Your task to perform on an android device: change timer sound Image 0: 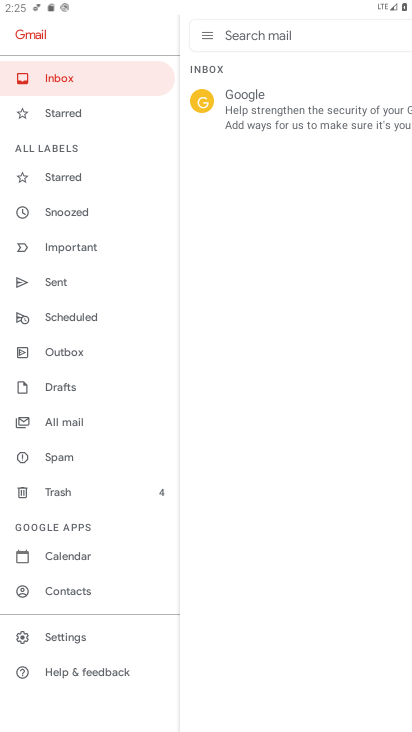
Step 0: press home button
Your task to perform on an android device: change timer sound Image 1: 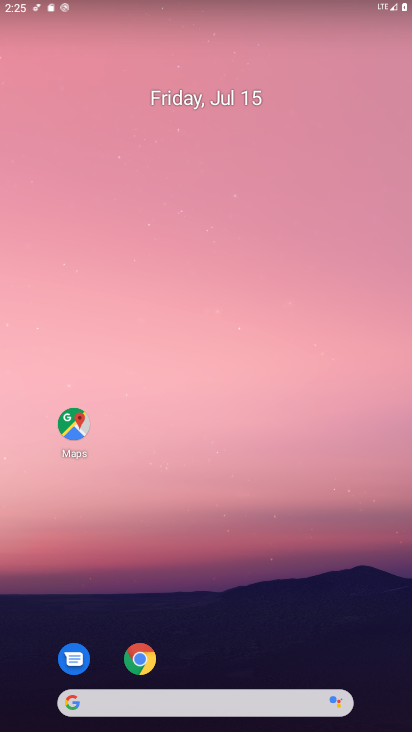
Step 1: drag from (194, 633) to (209, 221)
Your task to perform on an android device: change timer sound Image 2: 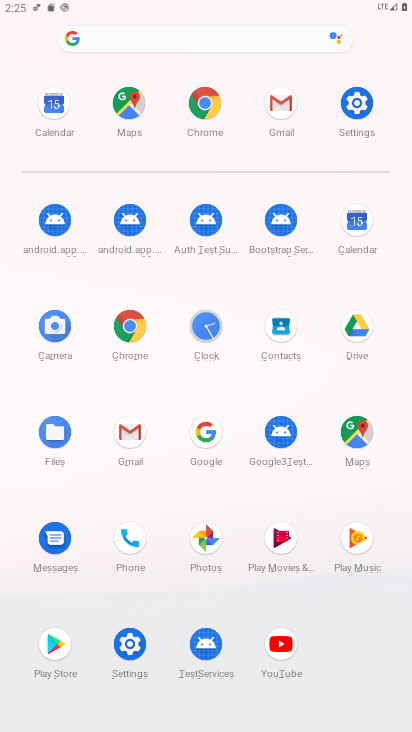
Step 2: click (212, 319)
Your task to perform on an android device: change timer sound Image 3: 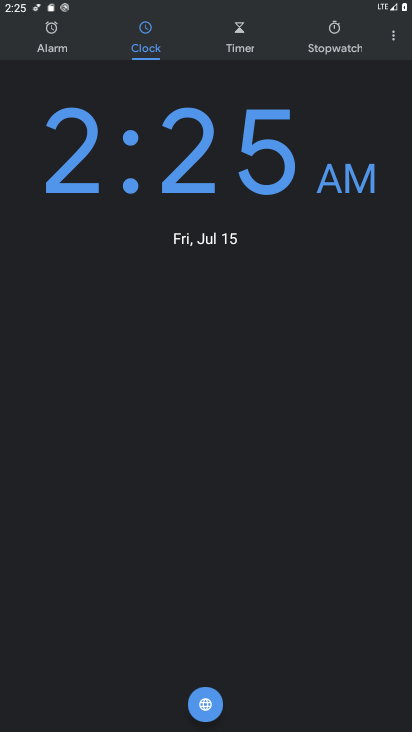
Step 3: click (389, 34)
Your task to perform on an android device: change timer sound Image 4: 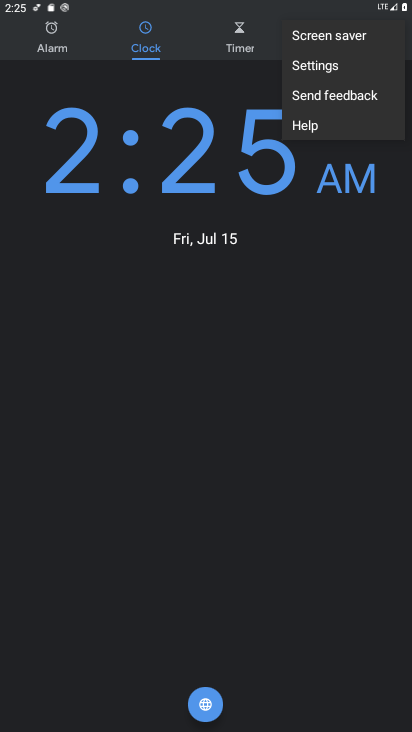
Step 4: click (323, 66)
Your task to perform on an android device: change timer sound Image 5: 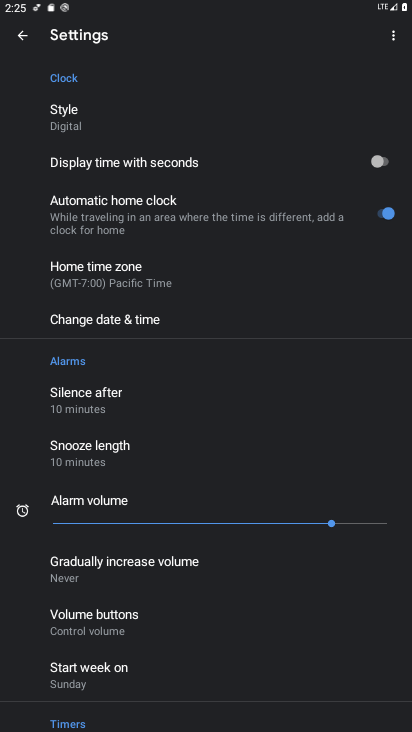
Step 5: drag from (144, 596) to (251, 284)
Your task to perform on an android device: change timer sound Image 6: 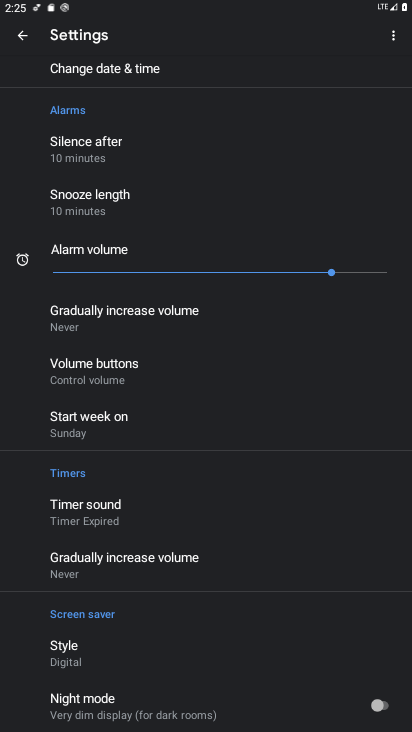
Step 6: click (132, 517)
Your task to perform on an android device: change timer sound Image 7: 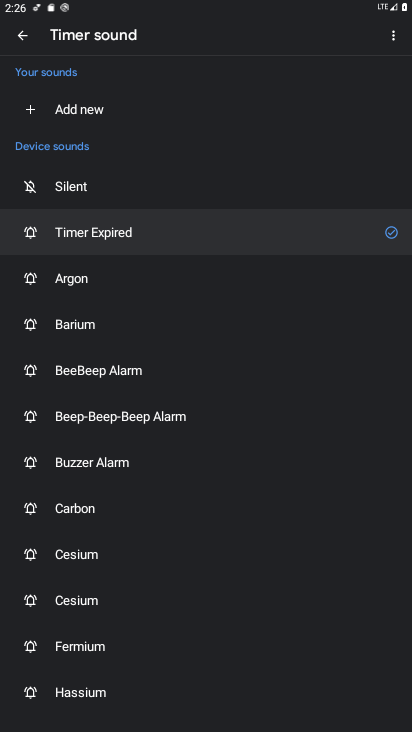
Step 7: click (96, 325)
Your task to perform on an android device: change timer sound Image 8: 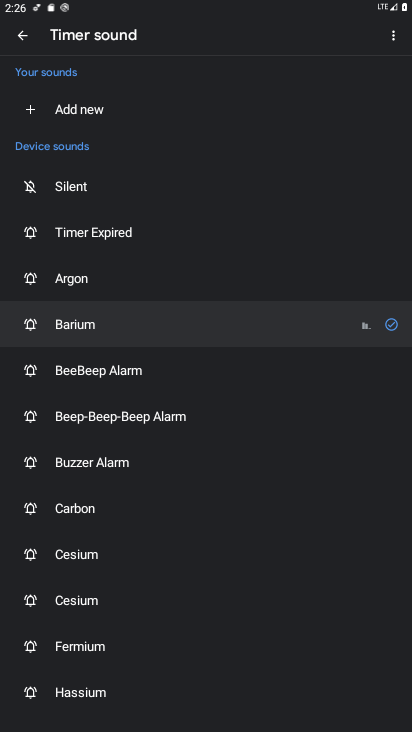
Step 8: task complete